Your task to perform on an android device: Search for runner rugs on Crate & Barrel Image 0: 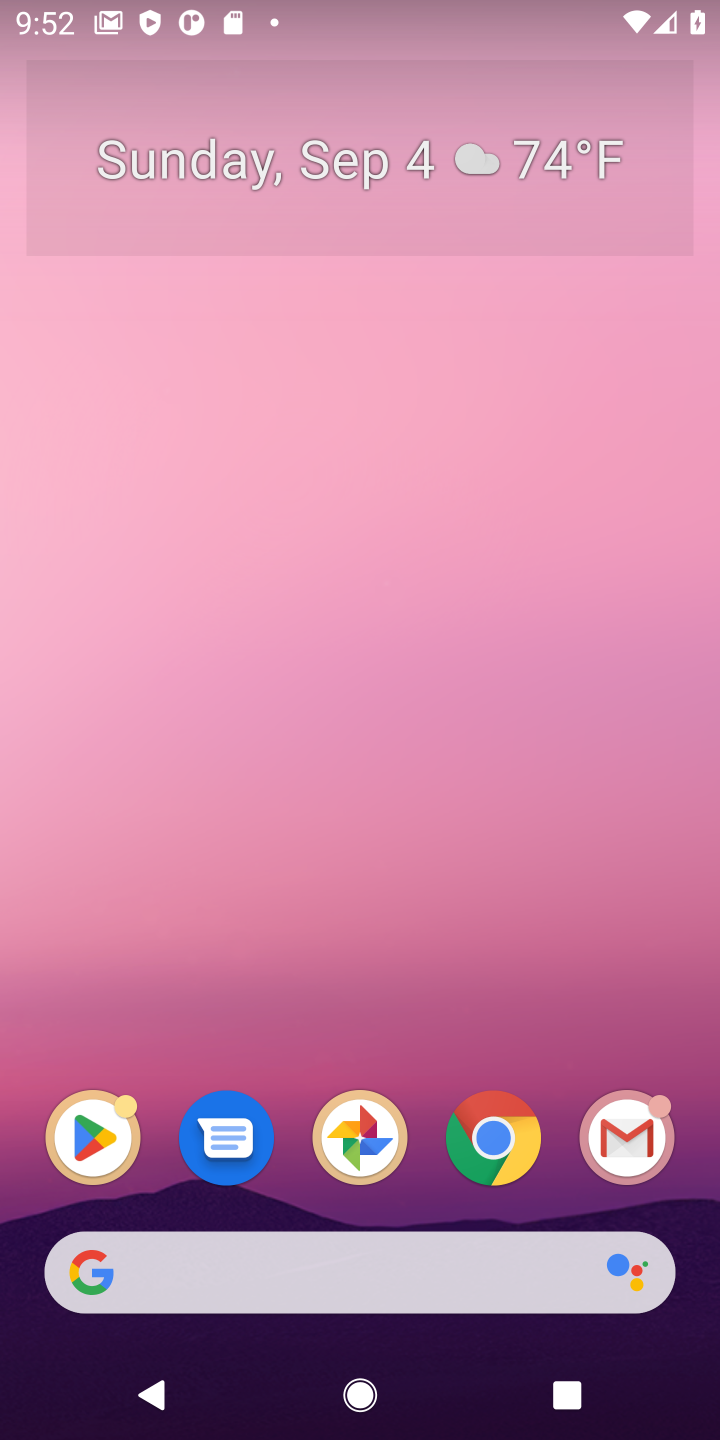
Step 0: click (507, 1173)
Your task to perform on an android device: Search for runner rugs on Crate & Barrel Image 1: 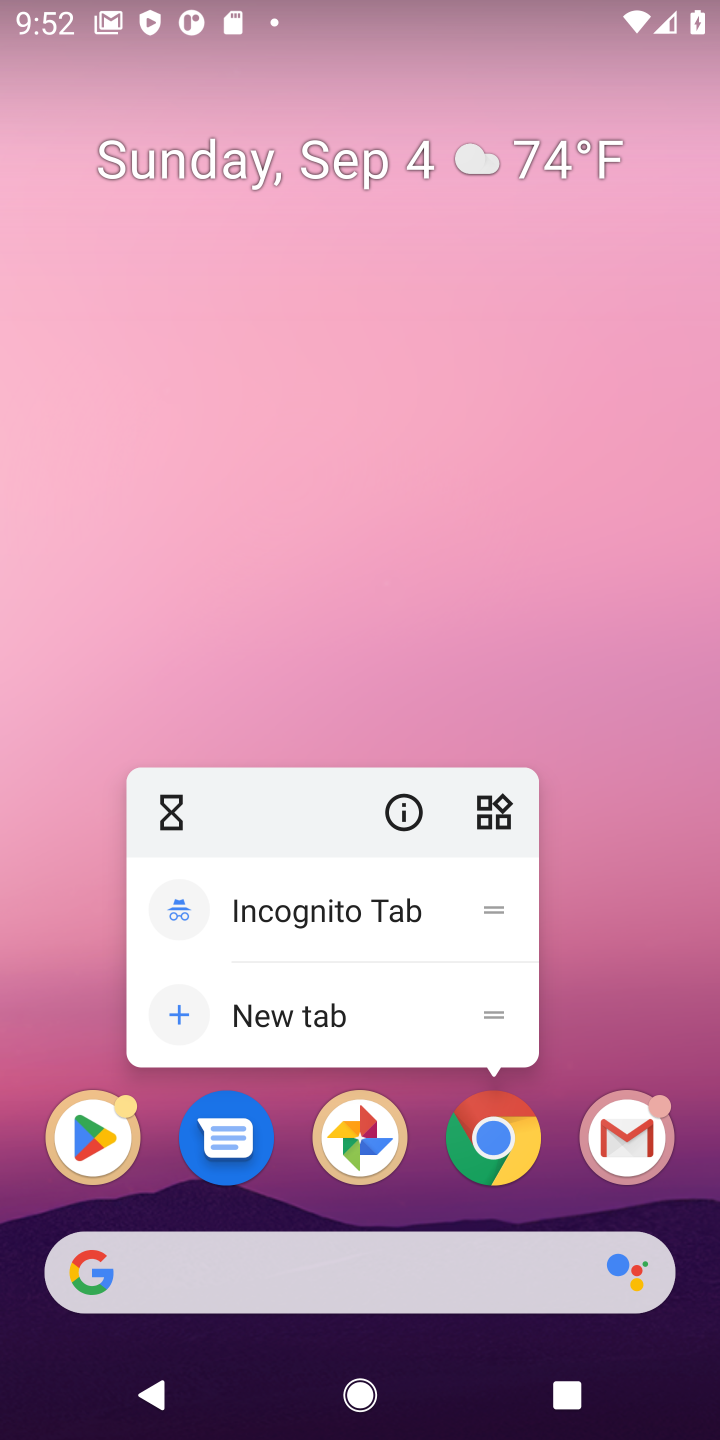
Step 1: click (507, 1173)
Your task to perform on an android device: Search for runner rugs on Crate & Barrel Image 2: 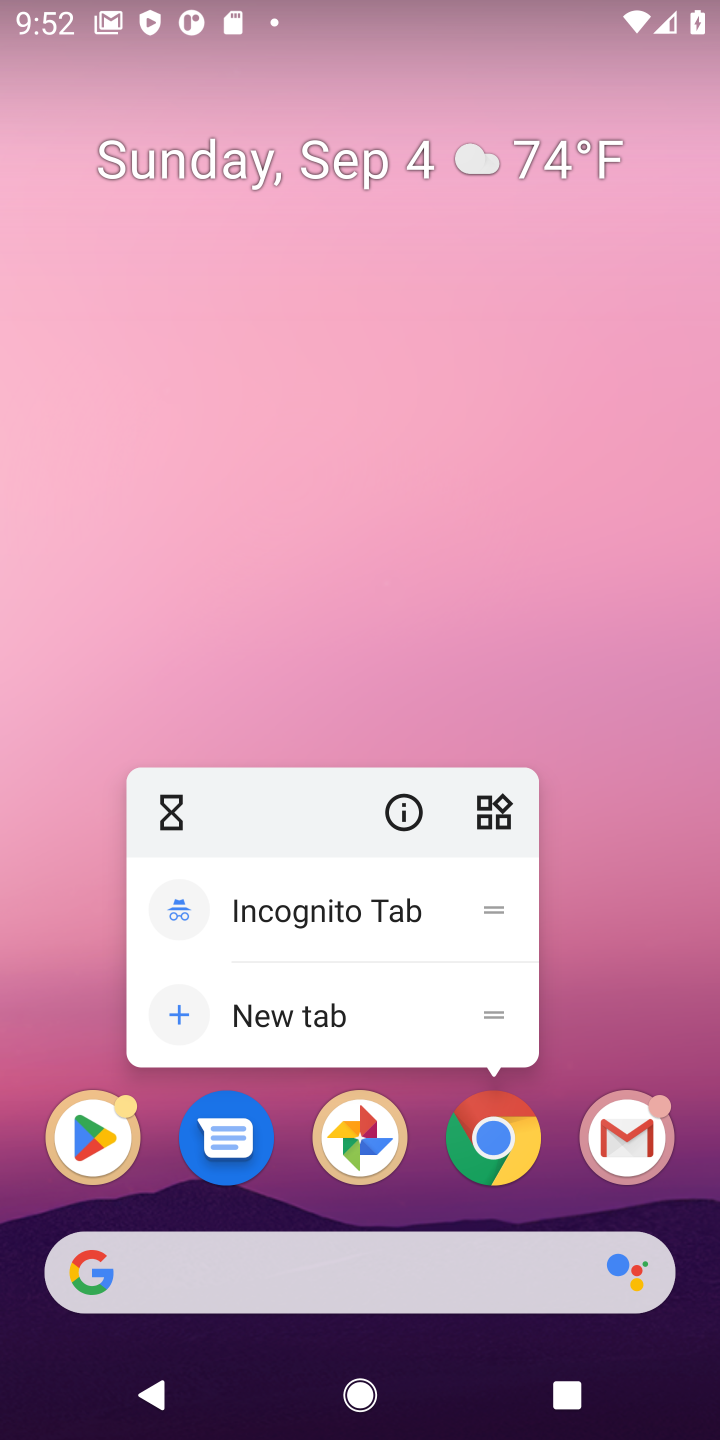
Step 2: click (507, 1173)
Your task to perform on an android device: Search for runner rugs on Crate & Barrel Image 3: 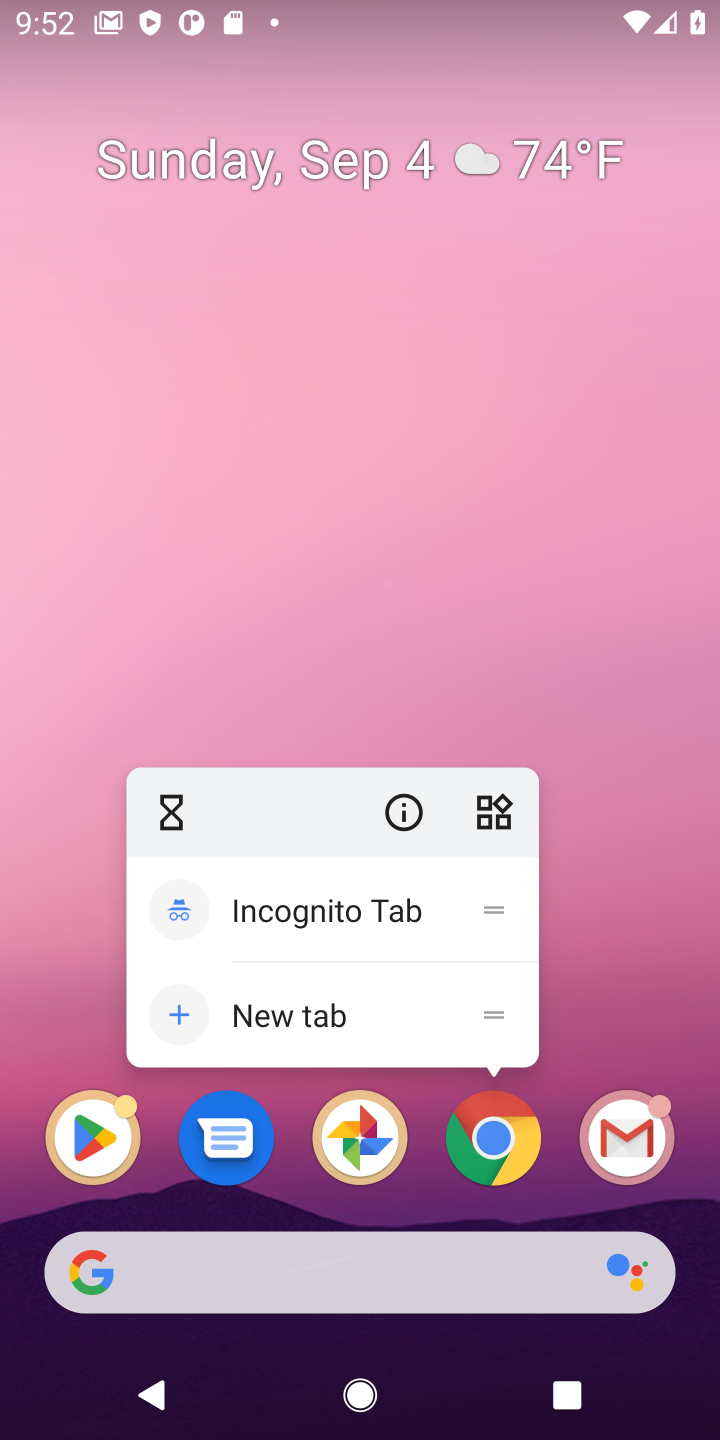
Step 3: click (507, 1173)
Your task to perform on an android device: Search for runner rugs on Crate & Barrel Image 4: 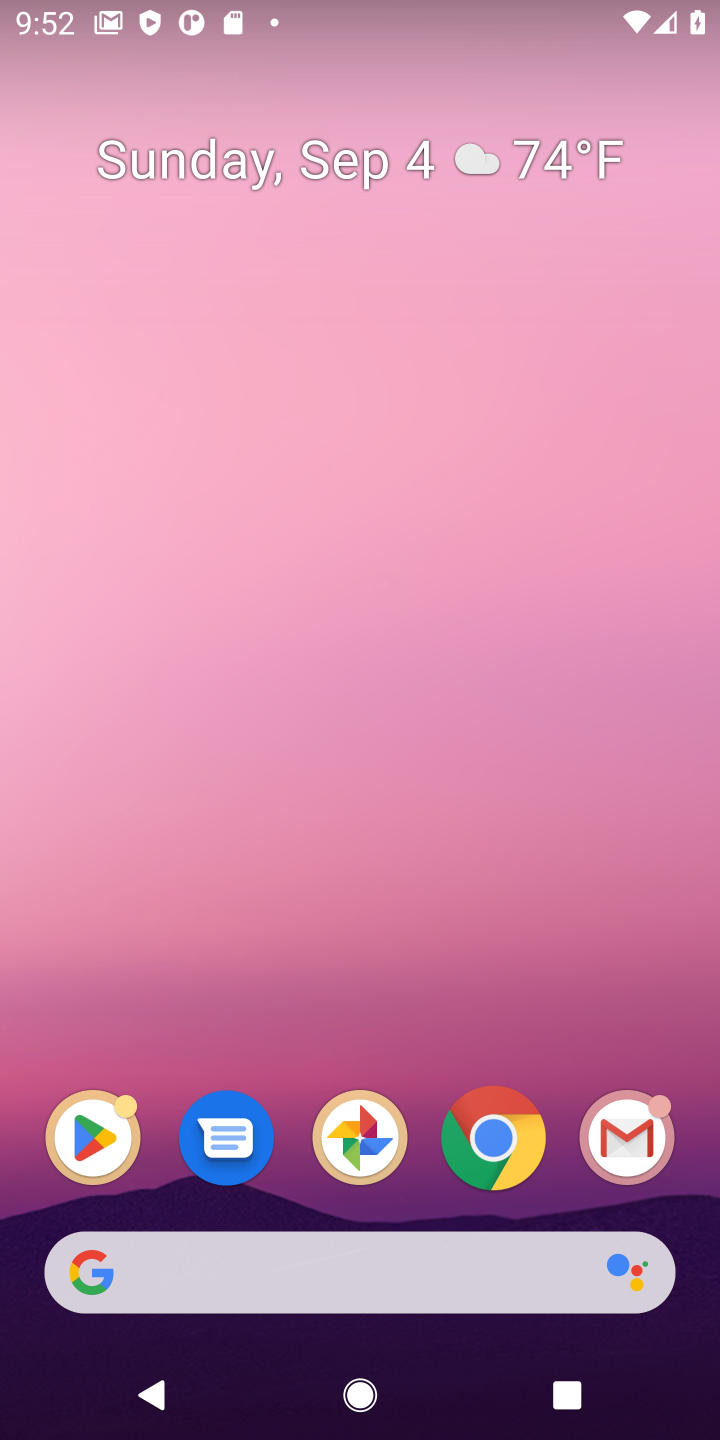
Step 4: click (507, 1173)
Your task to perform on an android device: Search for runner rugs on Crate & Barrel Image 5: 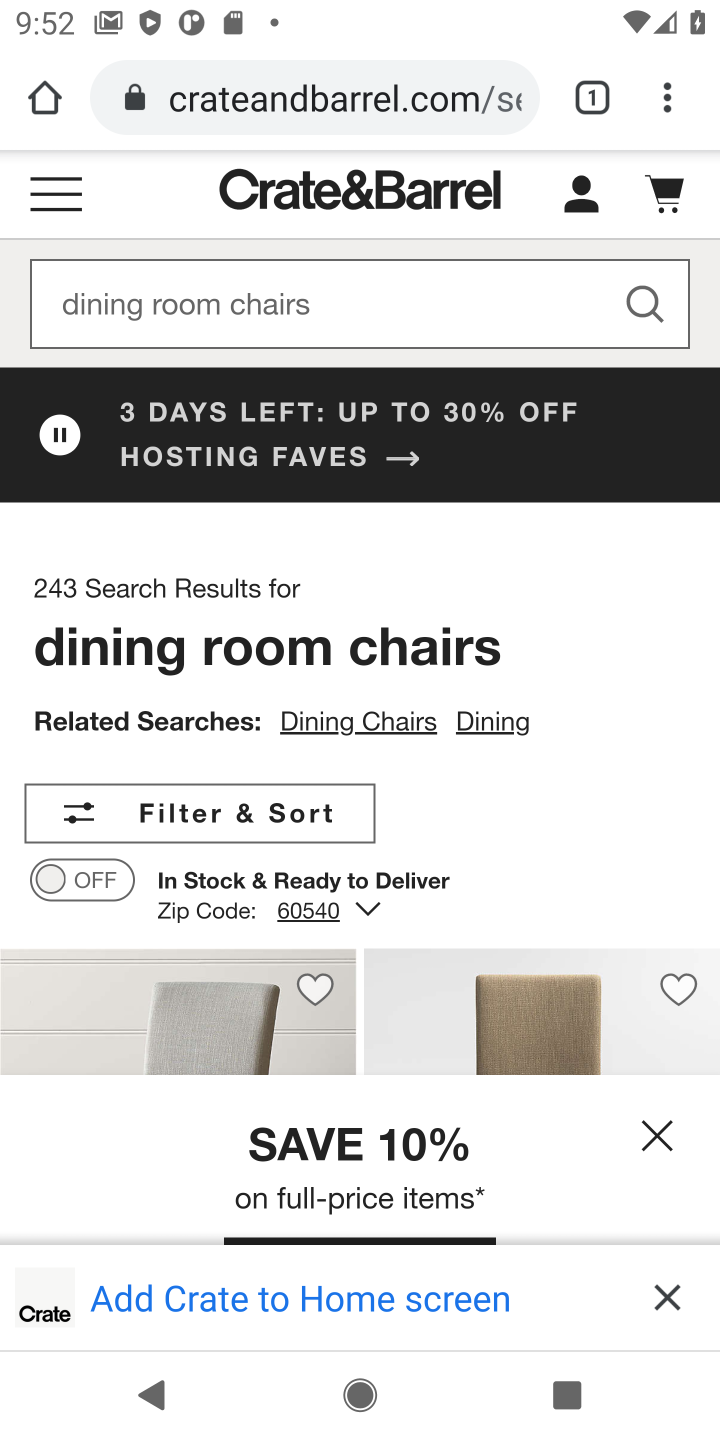
Step 5: click (414, 326)
Your task to perform on an android device: Search for runner rugs on Crate & Barrel Image 6: 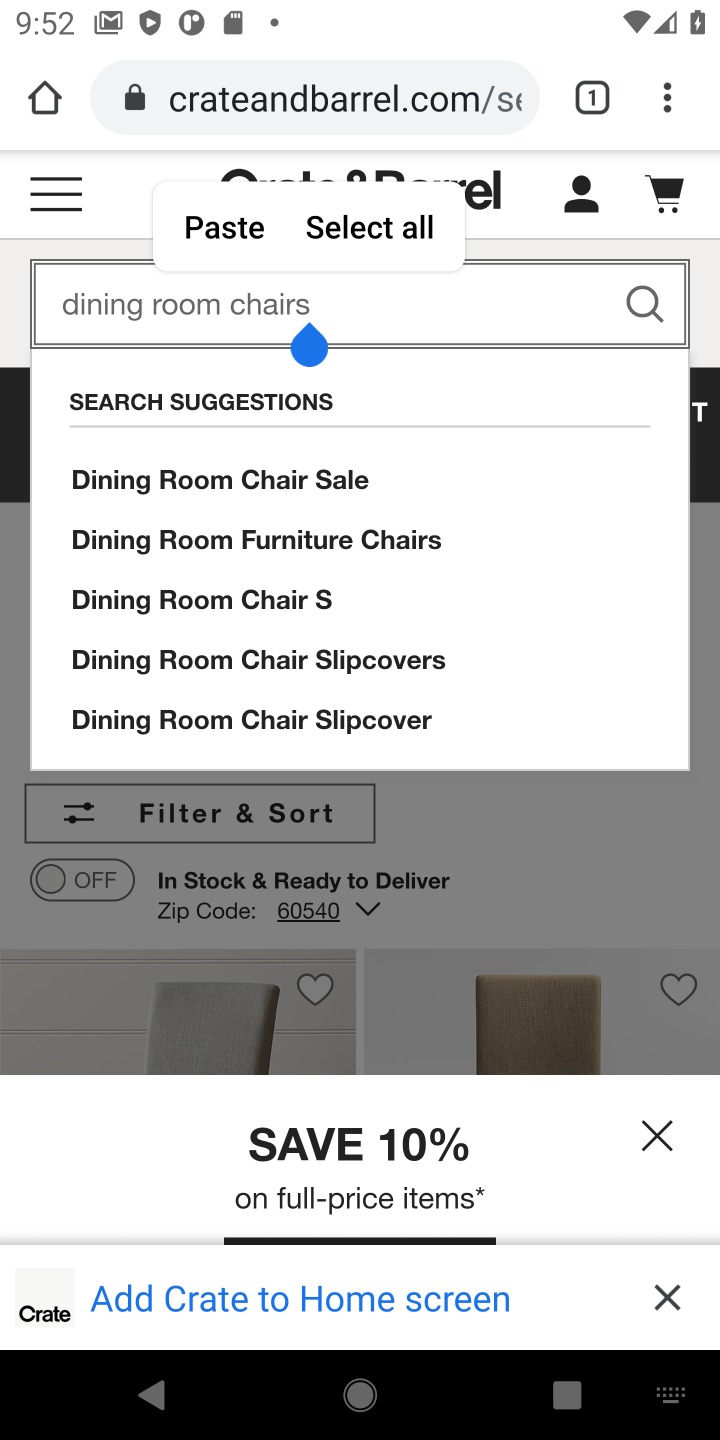
Step 6: click (511, 312)
Your task to perform on an android device: Search for runner rugs on Crate & Barrel Image 7: 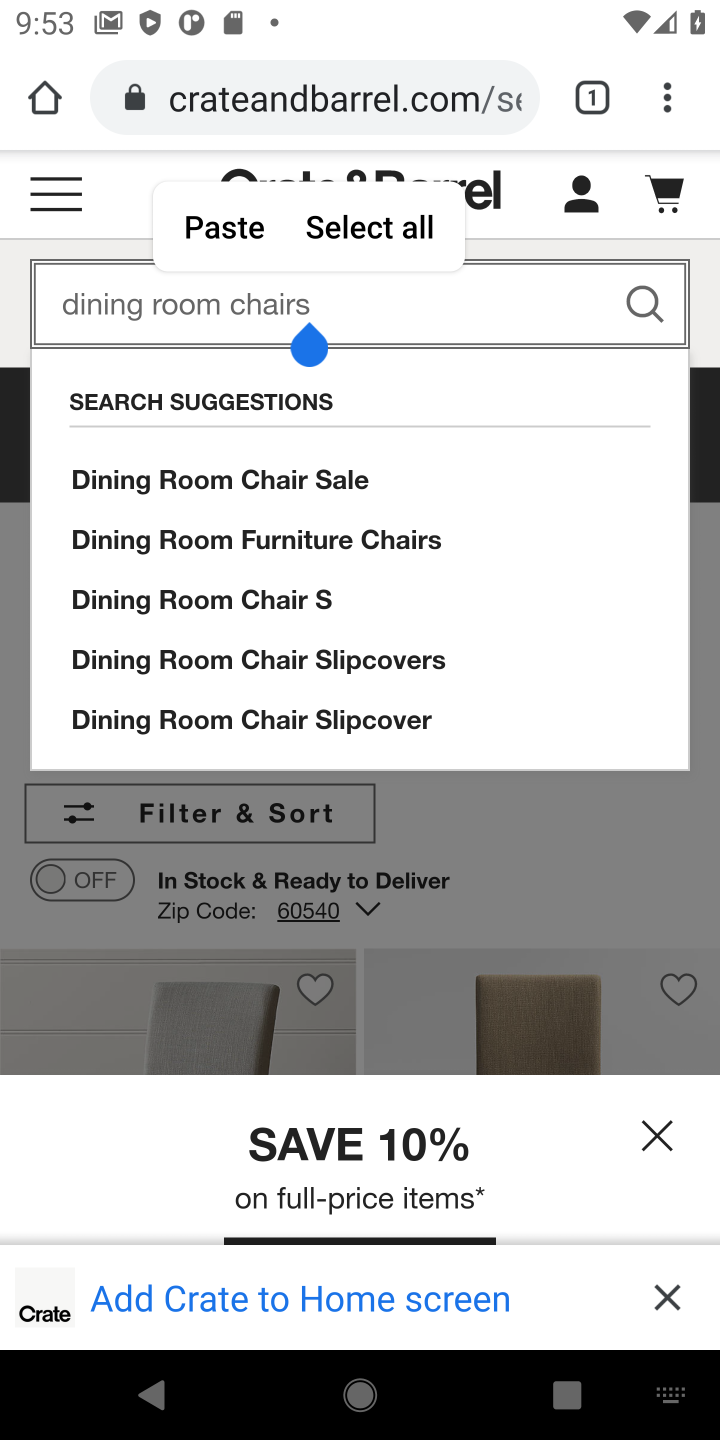
Step 7: click (330, 101)
Your task to perform on an android device: Search for runner rugs on Crate & Barrel Image 8: 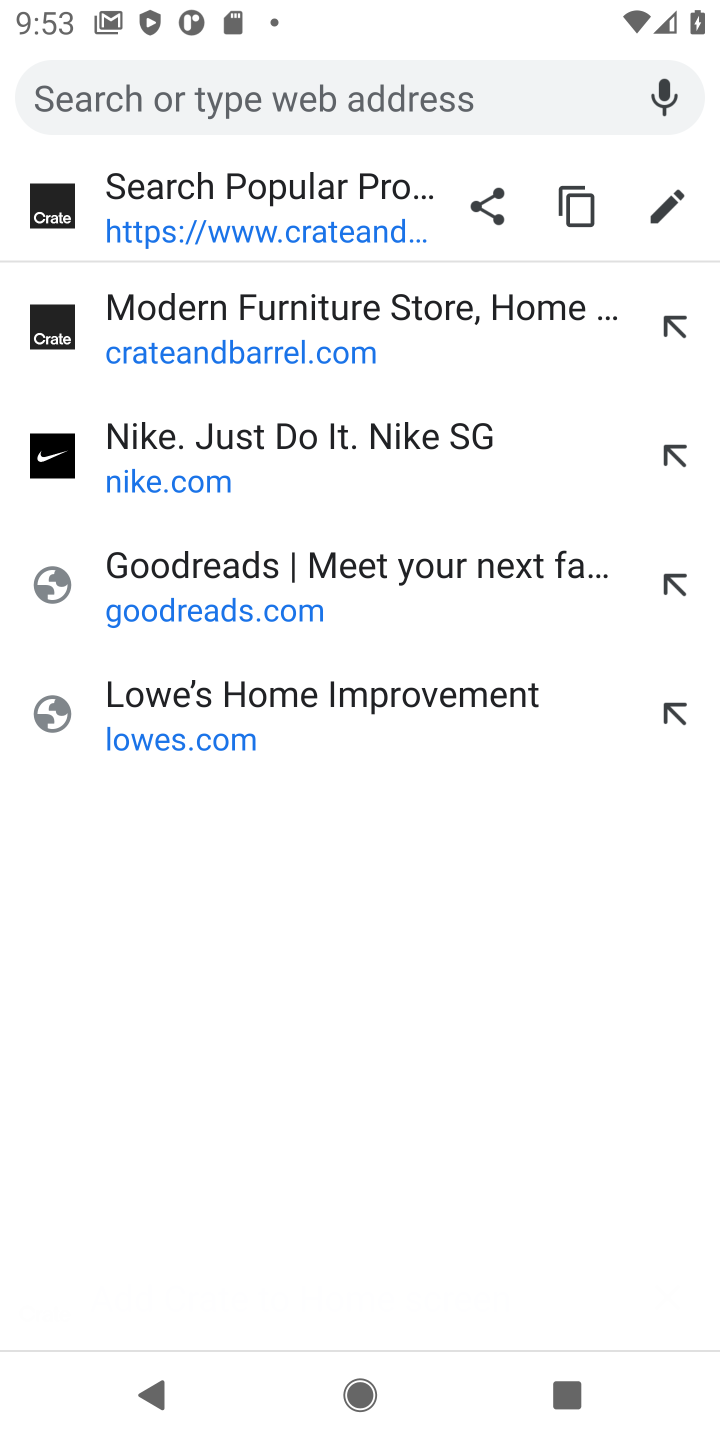
Step 8: click (375, 315)
Your task to perform on an android device: Search for runner rugs on Crate & Barrel Image 9: 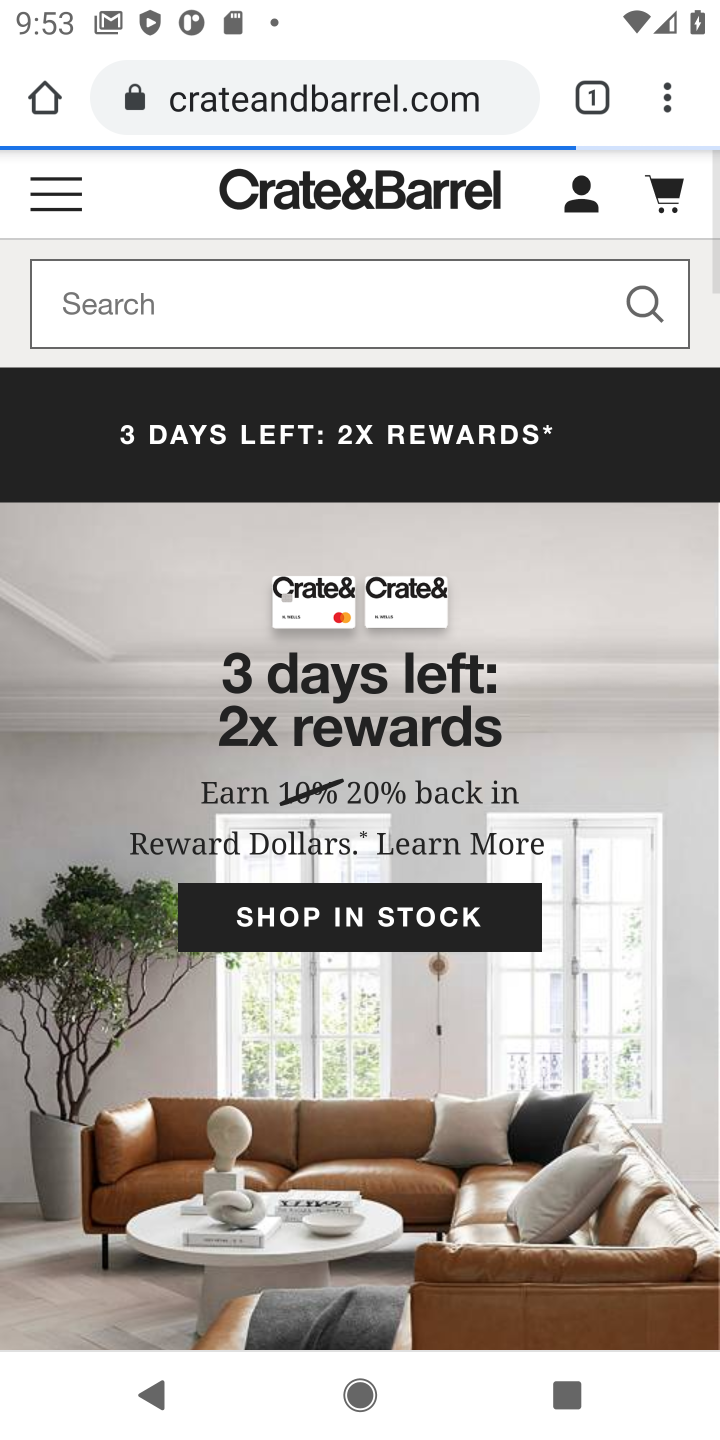
Step 9: click (375, 315)
Your task to perform on an android device: Search for runner rugs on Crate & Barrel Image 10: 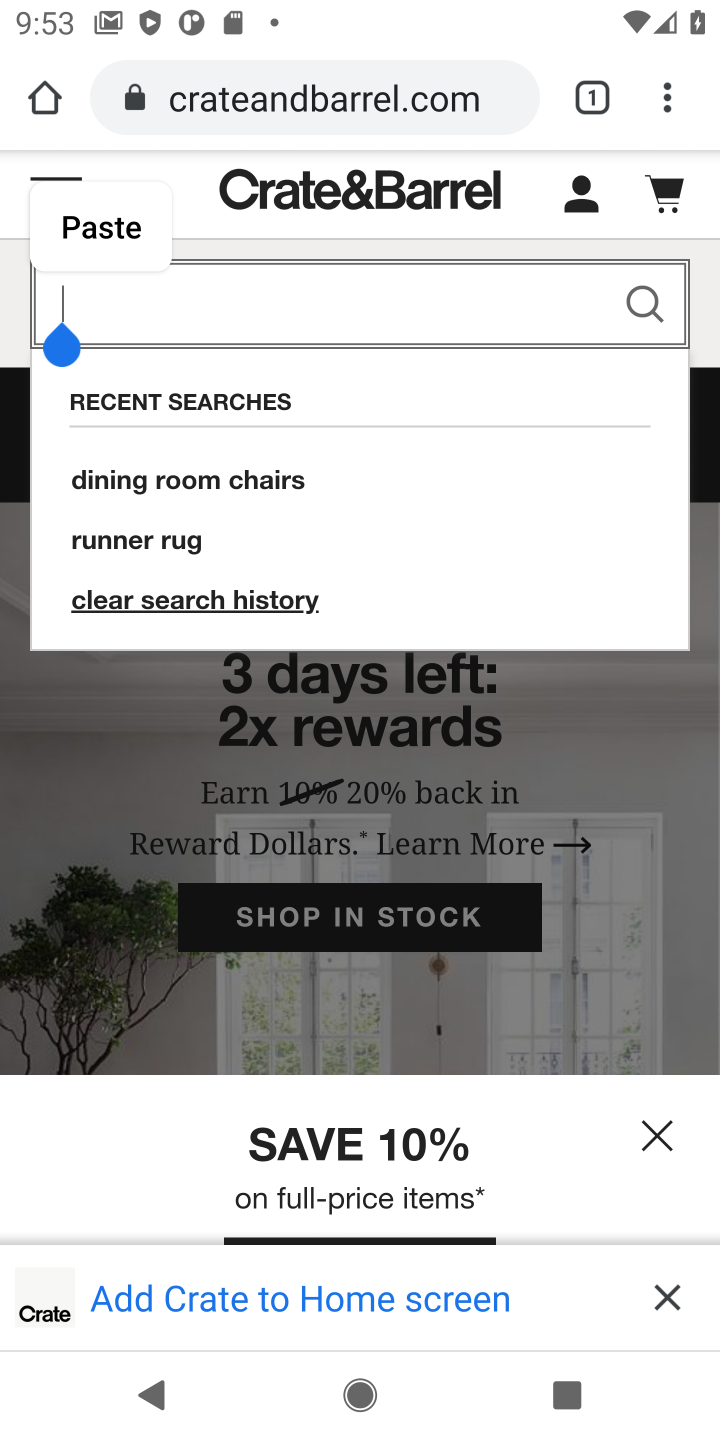
Step 10: type "runner rugs"
Your task to perform on an android device: Search for runner rugs on Crate & Barrel Image 11: 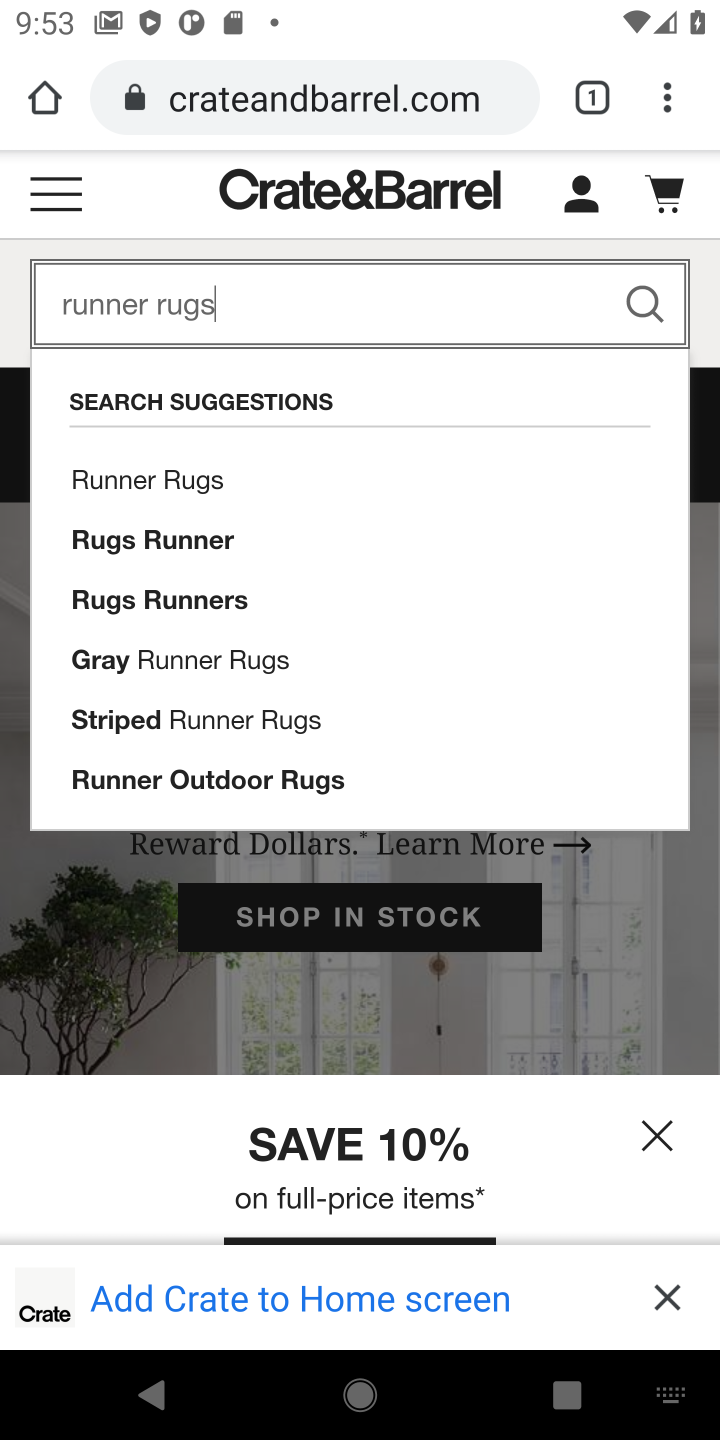
Step 11: click (225, 484)
Your task to perform on an android device: Search for runner rugs on Crate & Barrel Image 12: 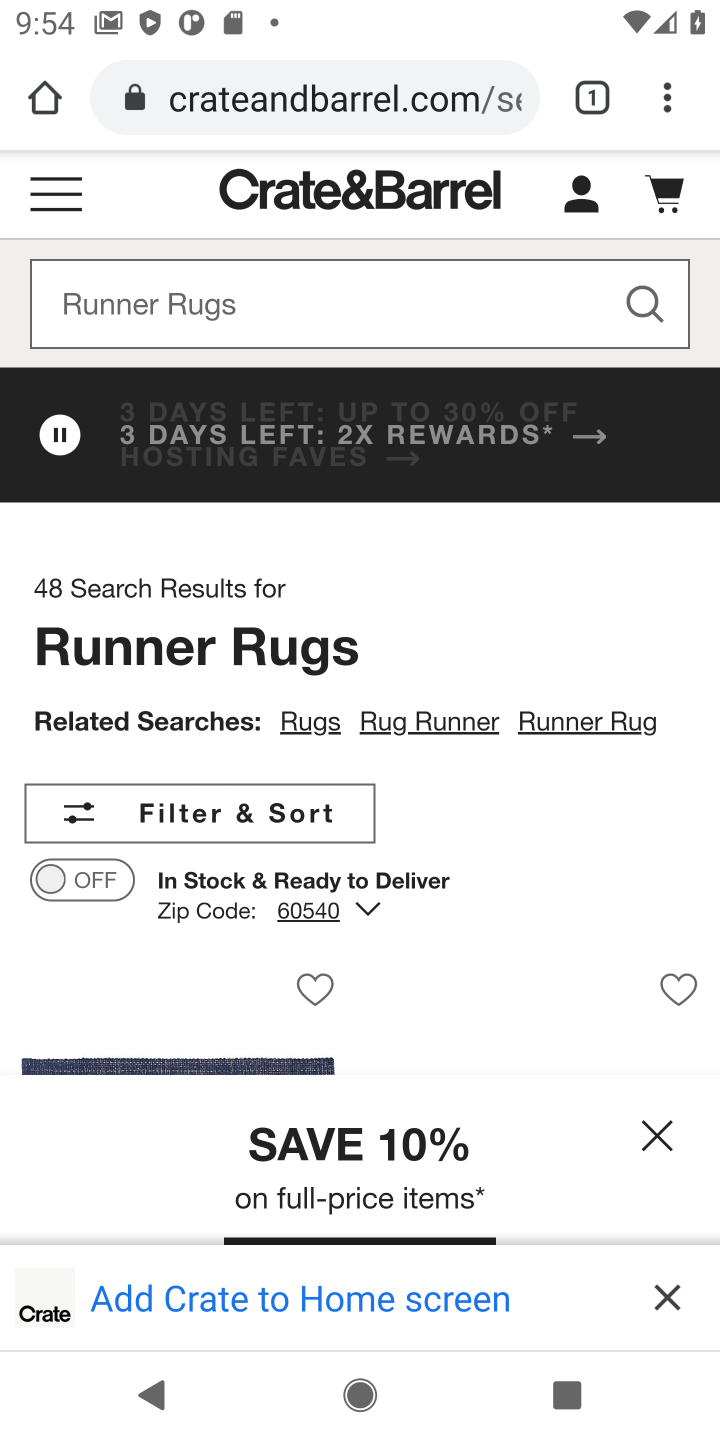
Step 12: task complete